Your task to perform on an android device: Open display settings Image 0: 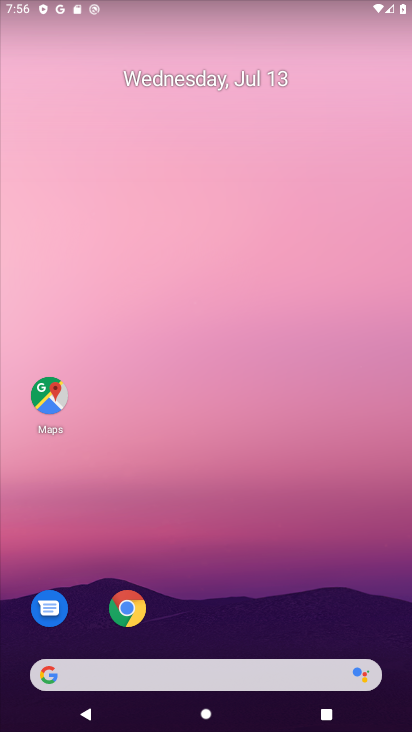
Step 0: drag from (262, 701) to (201, 243)
Your task to perform on an android device: Open display settings Image 1: 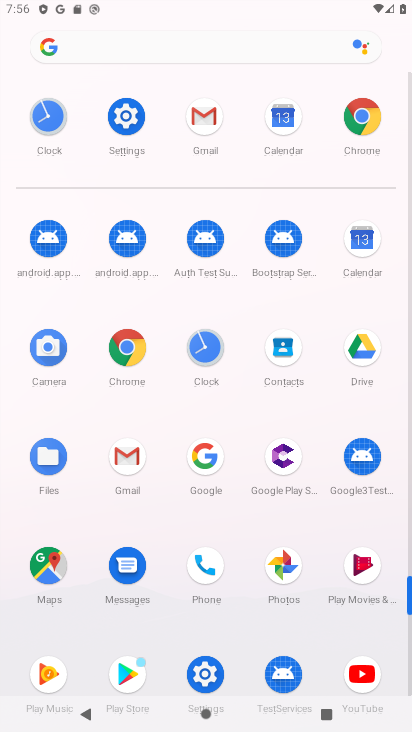
Step 1: drag from (195, 728) to (162, 196)
Your task to perform on an android device: Open display settings Image 2: 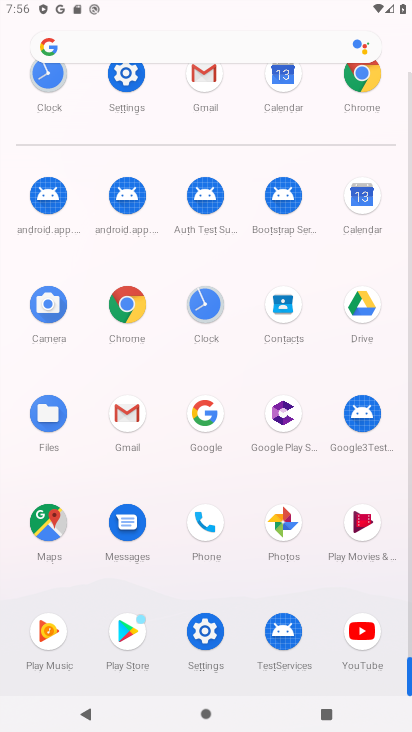
Step 2: click (209, 628)
Your task to perform on an android device: Open display settings Image 3: 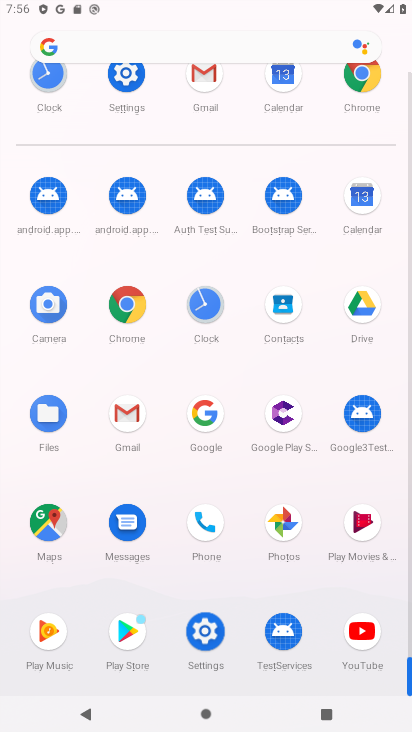
Step 3: click (205, 627)
Your task to perform on an android device: Open display settings Image 4: 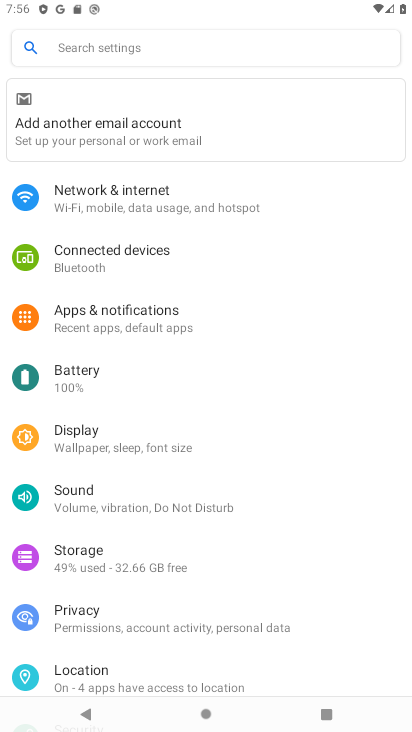
Step 4: drag from (92, 477) to (107, 177)
Your task to perform on an android device: Open display settings Image 5: 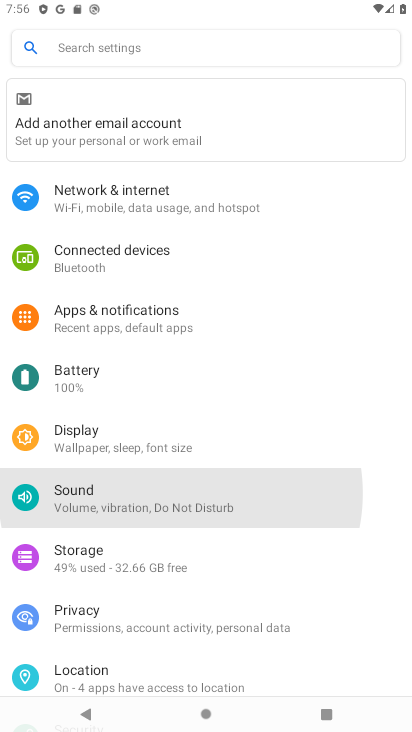
Step 5: drag from (166, 616) to (170, 298)
Your task to perform on an android device: Open display settings Image 6: 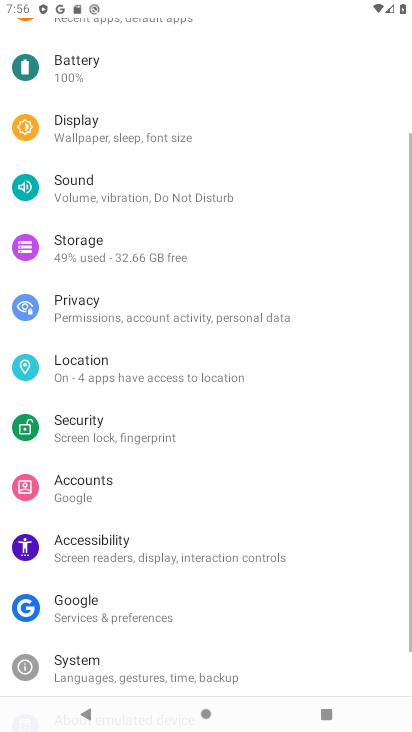
Step 6: drag from (188, 449) to (211, 138)
Your task to perform on an android device: Open display settings Image 7: 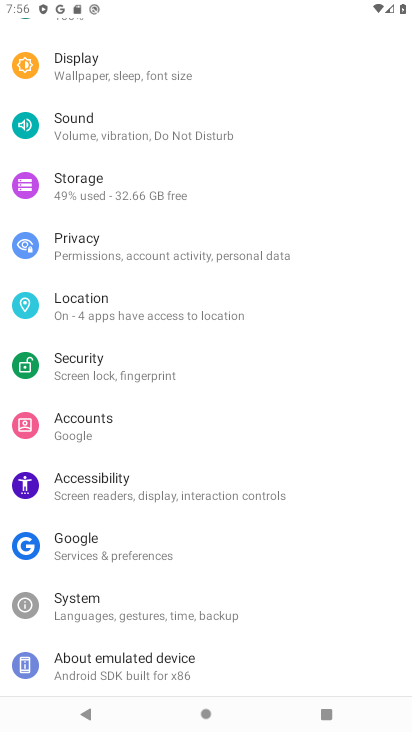
Step 7: click (89, 67)
Your task to perform on an android device: Open display settings Image 8: 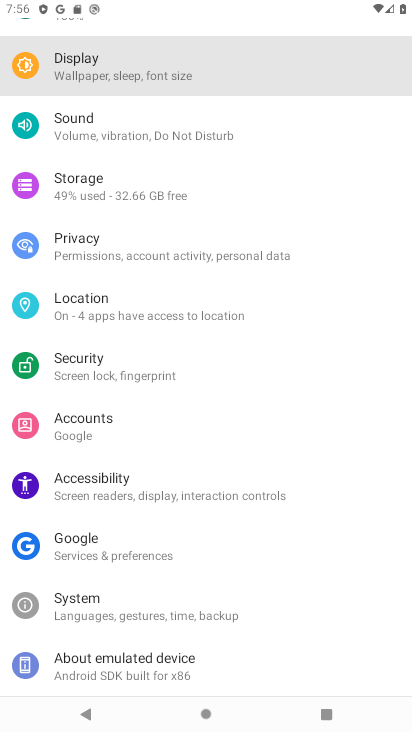
Step 8: click (89, 67)
Your task to perform on an android device: Open display settings Image 9: 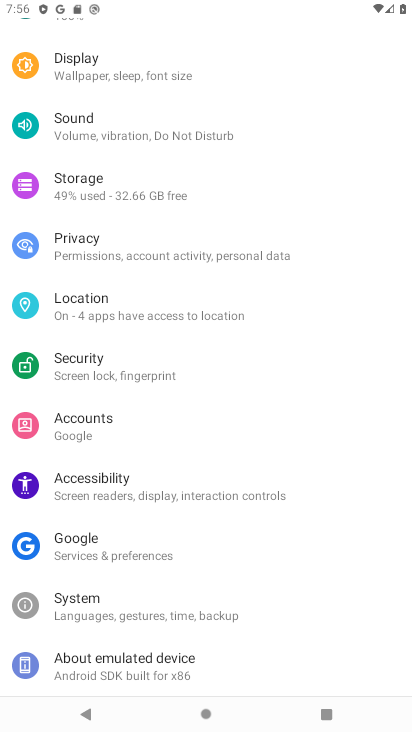
Step 9: click (89, 67)
Your task to perform on an android device: Open display settings Image 10: 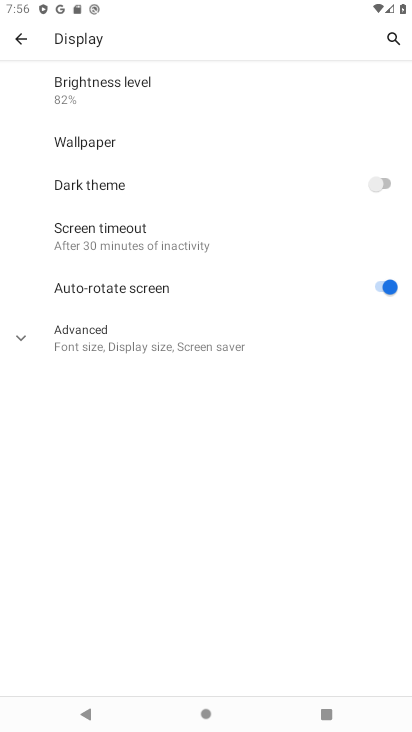
Step 10: task complete